Your task to perform on an android device: Turn on the flashlight Image 0: 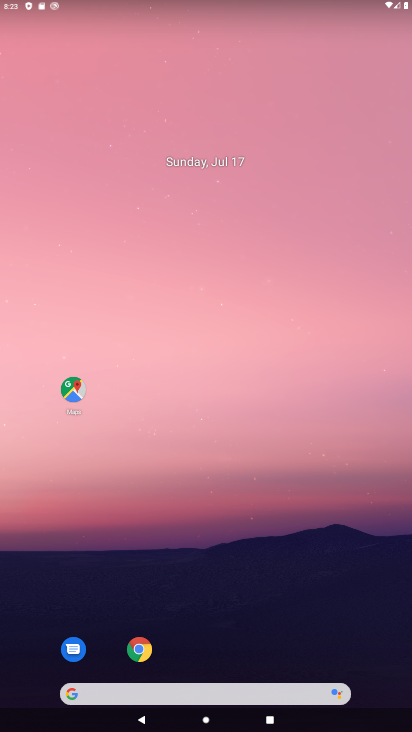
Step 0: drag from (233, 667) to (260, 184)
Your task to perform on an android device: Turn on the flashlight Image 1: 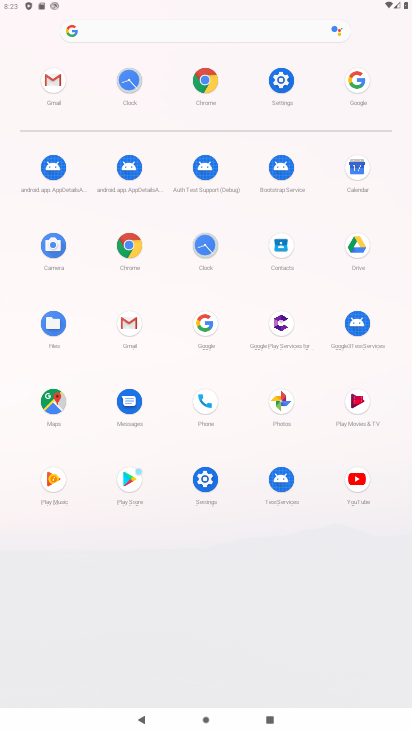
Step 1: click (283, 82)
Your task to perform on an android device: Turn on the flashlight Image 2: 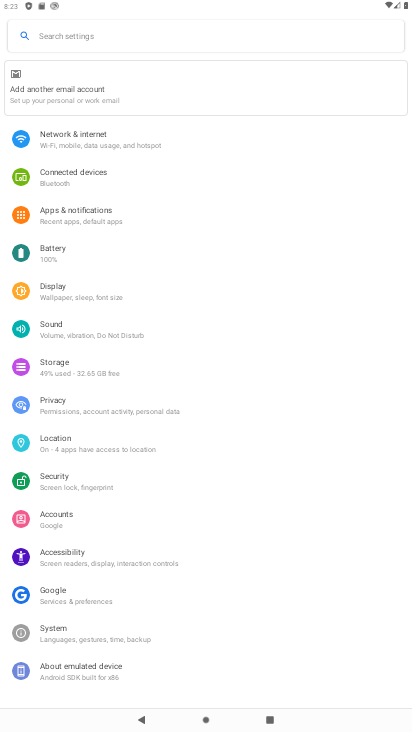
Step 2: click (130, 37)
Your task to perform on an android device: Turn on the flashlight Image 3: 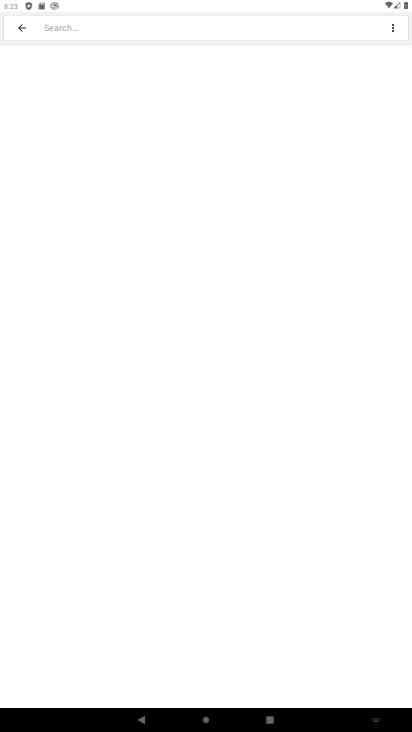
Step 3: type "flash"
Your task to perform on an android device: Turn on the flashlight Image 4: 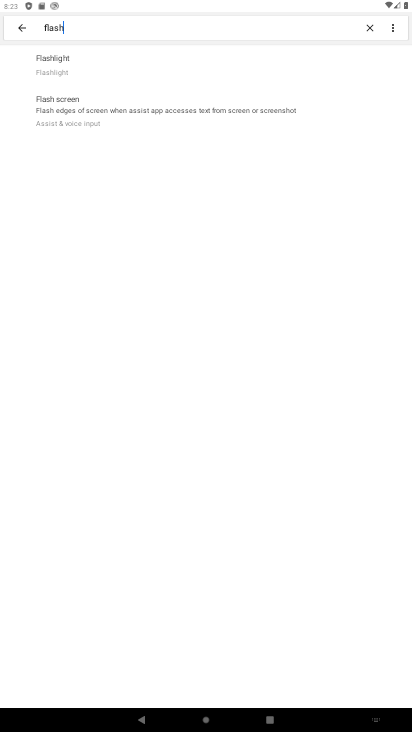
Step 4: task complete